Your task to perform on an android device: turn off data saver in the chrome app Image 0: 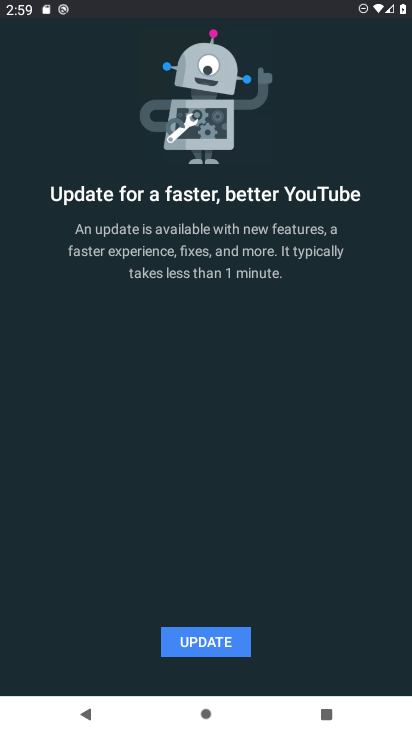
Step 0: press home button
Your task to perform on an android device: turn off data saver in the chrome app Image 1: 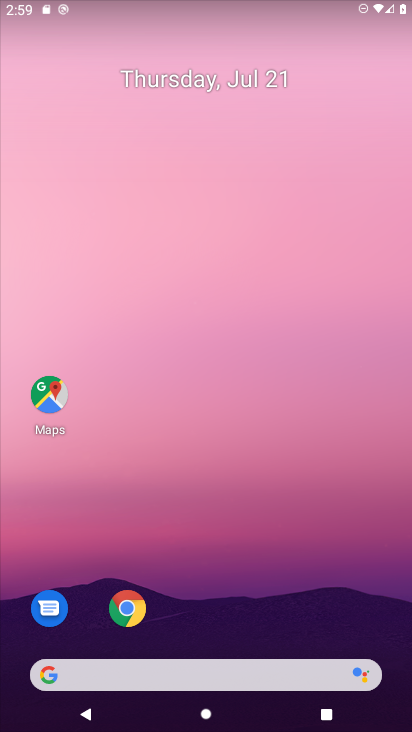
Step 1: click (143, 618)
Your task to perform on an android device: turn off data saver in the chrome app Image 2: 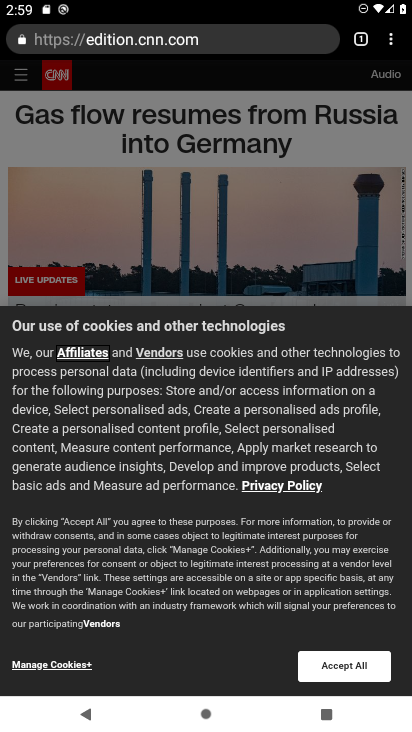
Step 2: click (381, 52)
Your task to perform on an android device: turn off data saver in the chrome app Image 3: 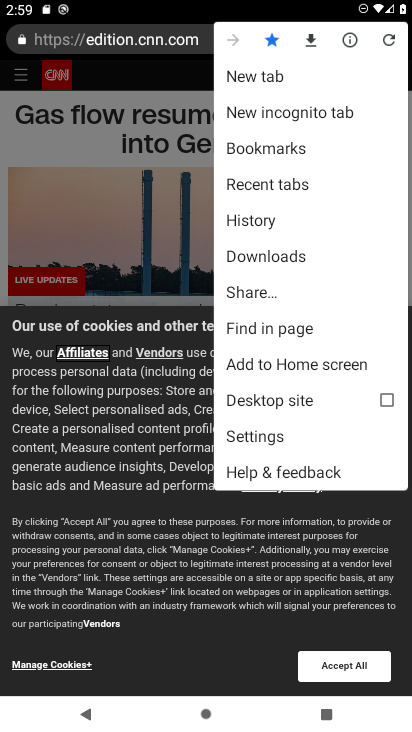
Step 3: click (237, 440)
Your task to perform on an android device: turn off data saver in the chrome app Image 4: 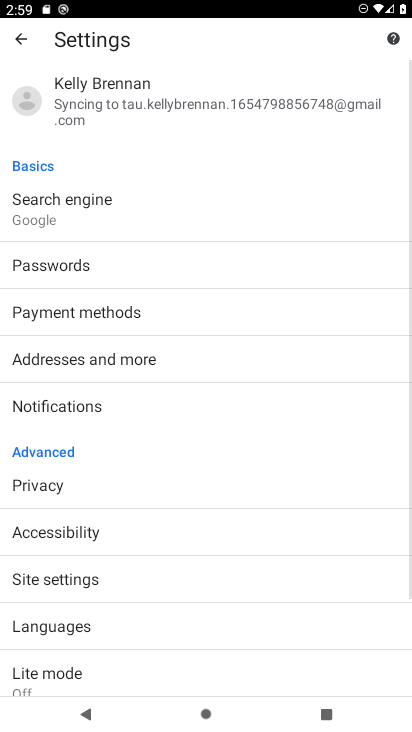
Step 4: click (77, 664)
Your task to perform on an android device: turn off data saver in the chrome app Image 5: 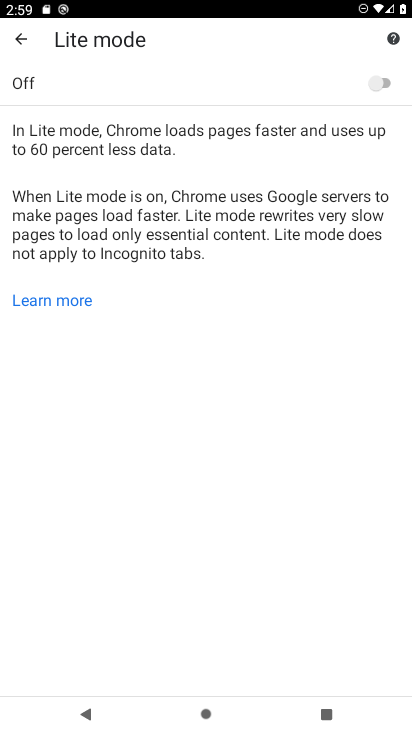
Step 5: task complete